Your task to perform on an android device: Toggle notifications for the Google Photos app Image 0: 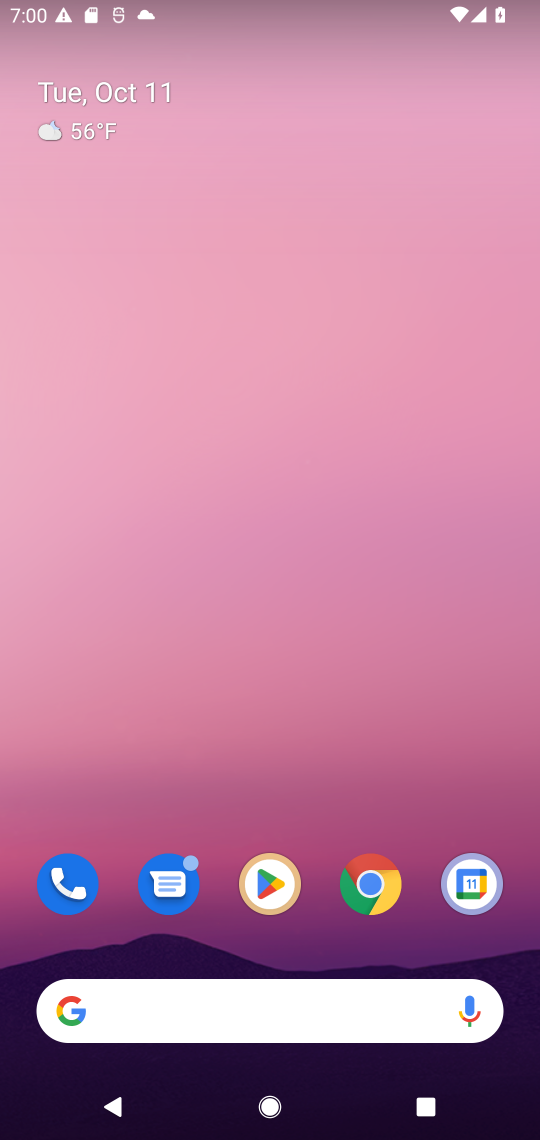
Step 0: drag from (341, 968) to (276, 81)
Your task to perform on an android device: Toggle notifications for the Google Photos app Image 1: 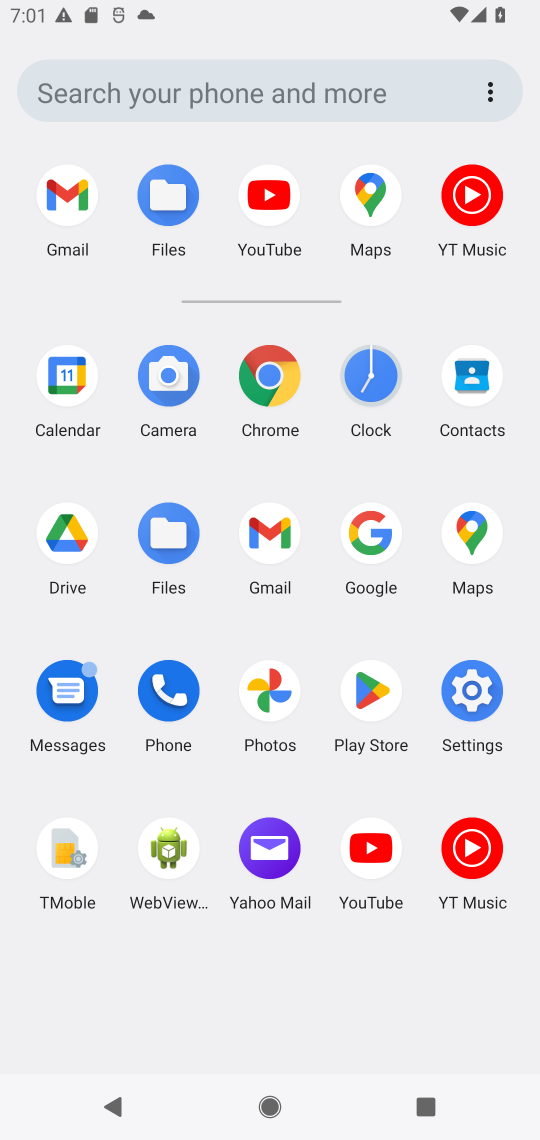
Step 1: click (367, 533)
Your task to perform on an android device: Toggle notifications for the Google Photos app Image 2: 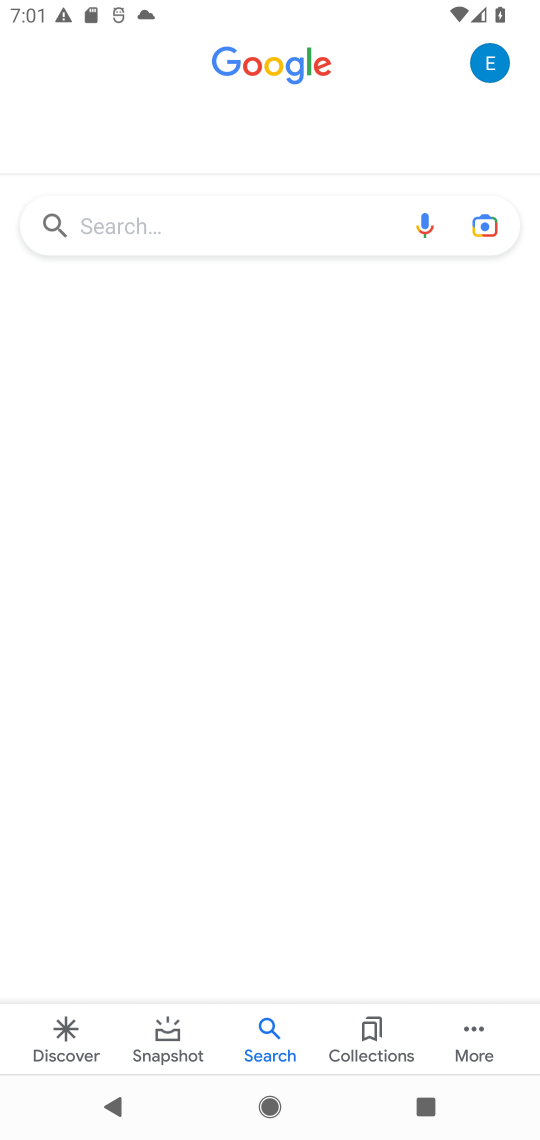
Step 2: press home button
Your task to perform on an android device: Toggle notifications for the Google Photos app Image 3: 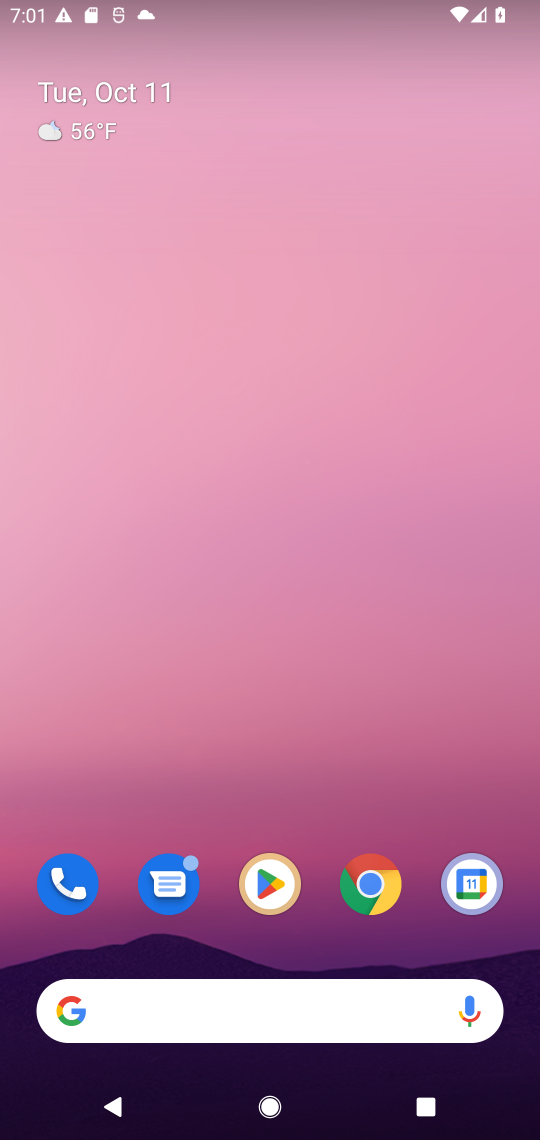
Step 3: drag from (334, 951) to (254, 179)
Your task to perform on an android device: Toggle notifications for the Google Photos app Image 4: 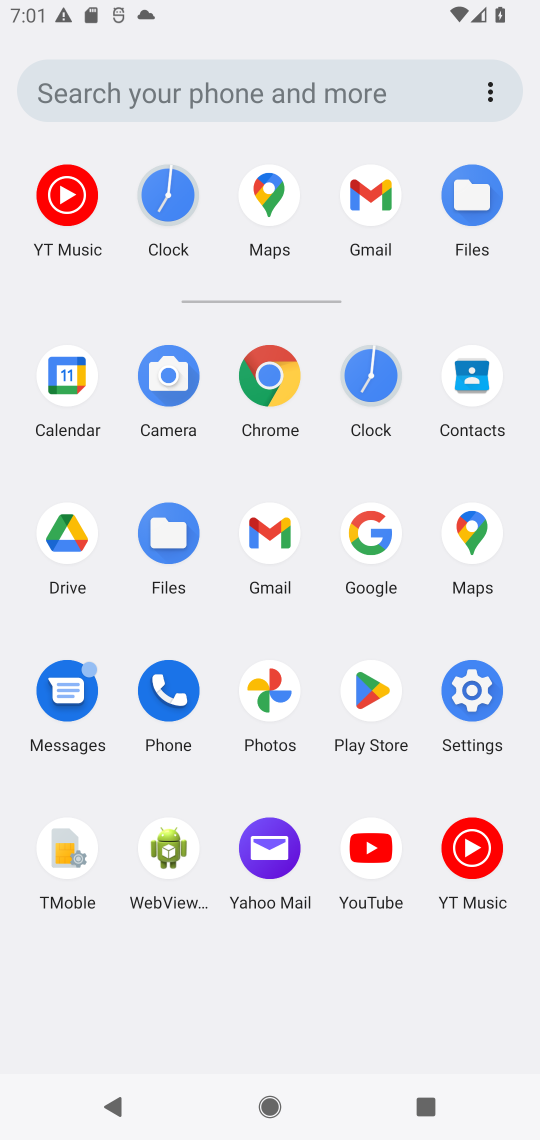
Step 4: click (270, 703)
Your task to perform on an android device: Toggle notifications for the Google Photos app Image 5: 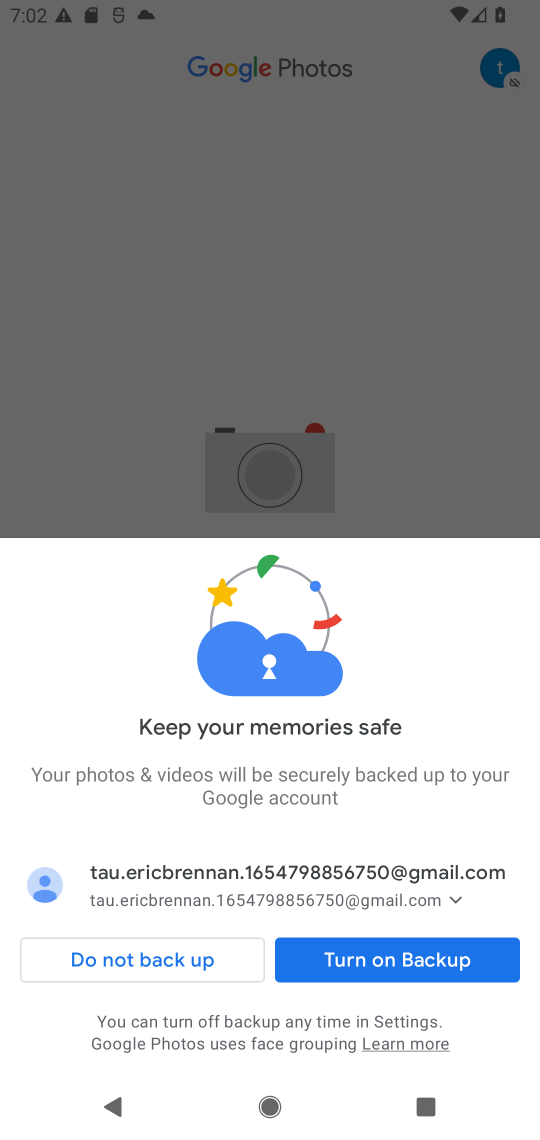
Step 5: click (186, 964)
Your task to perform on an android device: Toggle notifications for the Google Photos app Image 6: 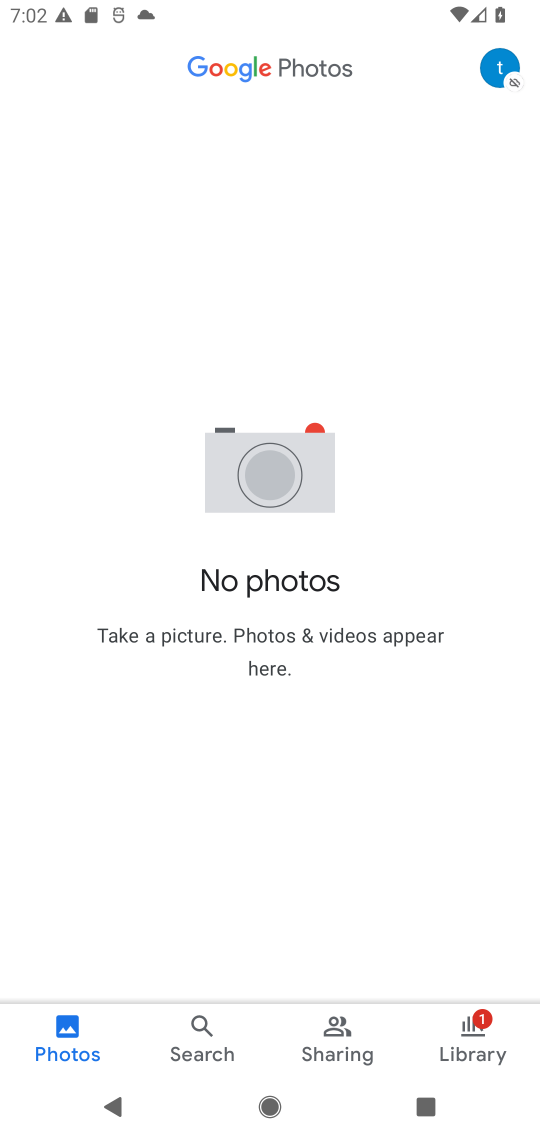
Step 6: click (509, 71)
Your task to perform on an android device: Toggle notifications for the Google Photos app Image 7: 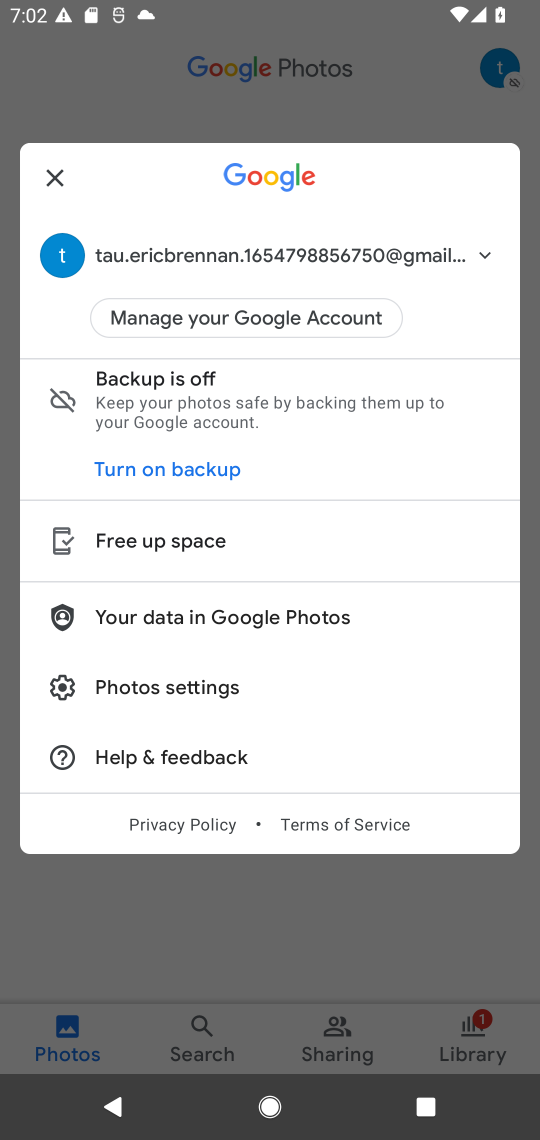
Step 7: click (209, 689)
Your task to perform on an android device: Toggle notifications for the Google Photos app Image 8: 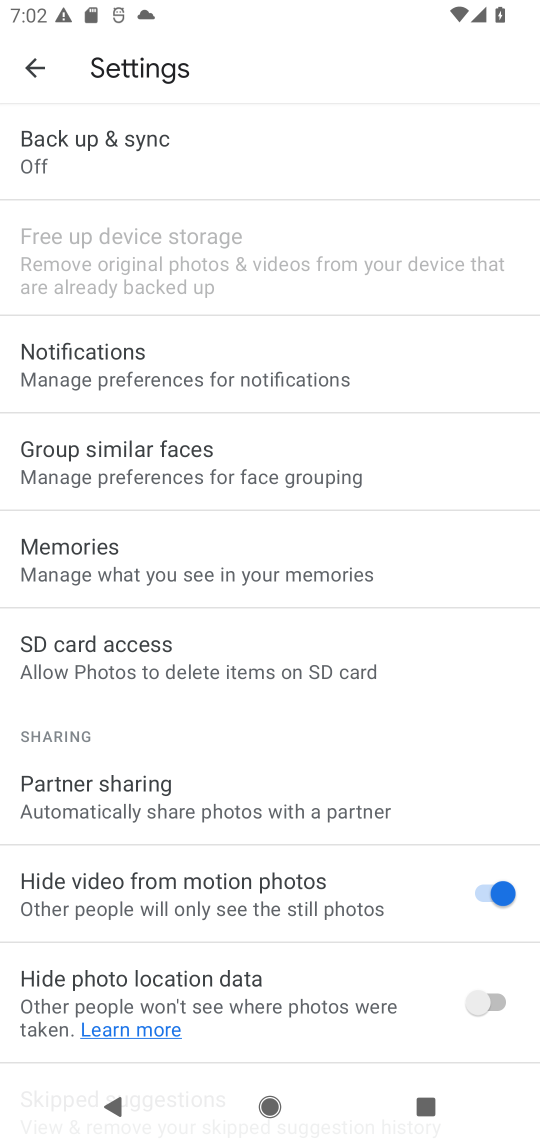
Step 8: click (82, 356)
Your task to perform on an android device: Toggle notifications for the Google Photos app Image 9: 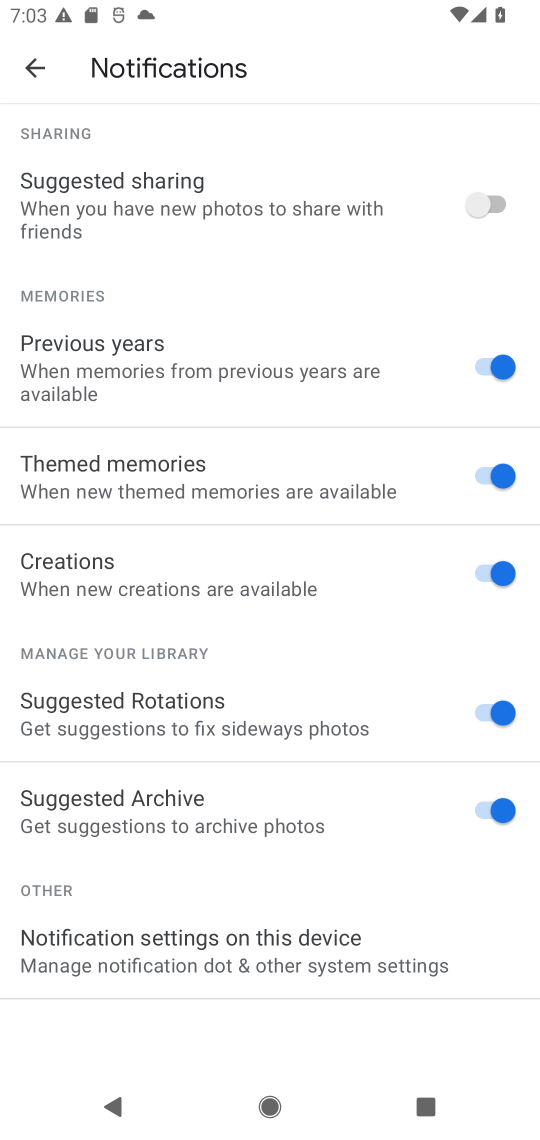
Step 9: click (268, 931)
Your task to perform on an android device: Toggle notifications for the Google Photos app Image 10: 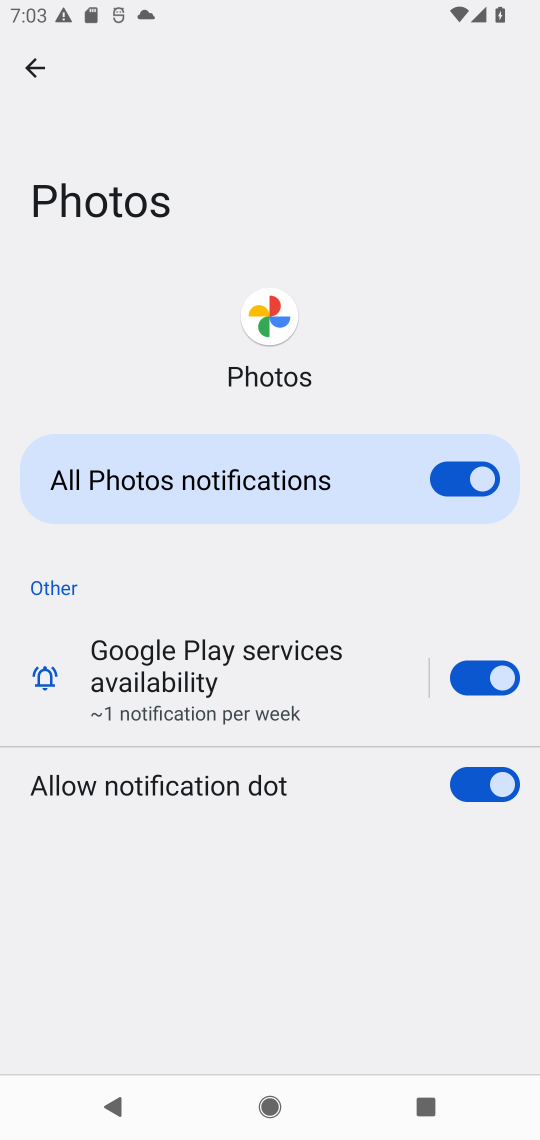
Step 10: click (461, 483)
Your task to perform on an android device: Toggle notifications for the Google Photos app Image 11: 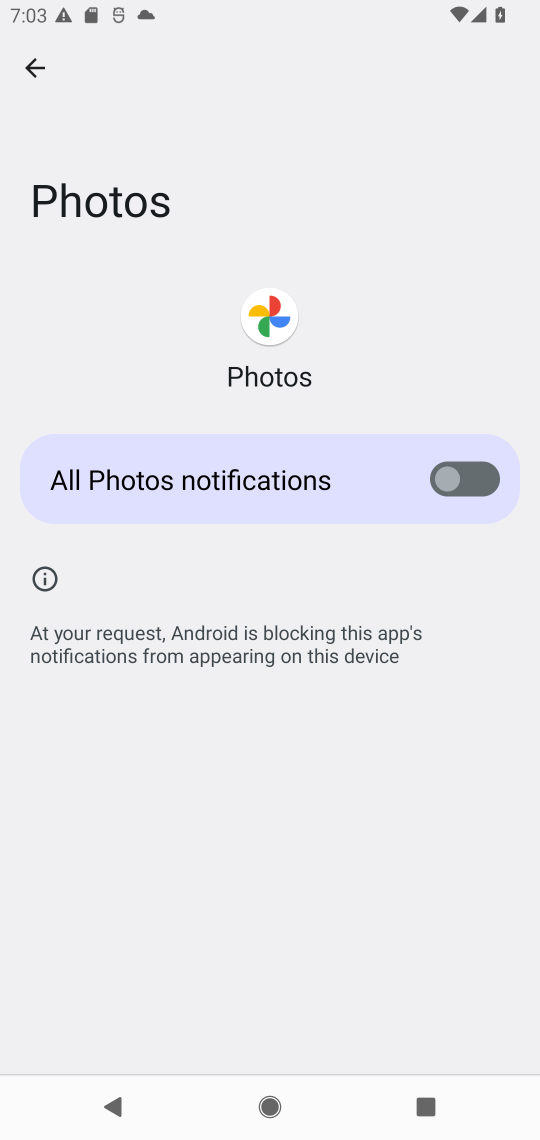
Step 11: task complete